Your task to perform on an android device: open a new tab in the chrome app Image 0: 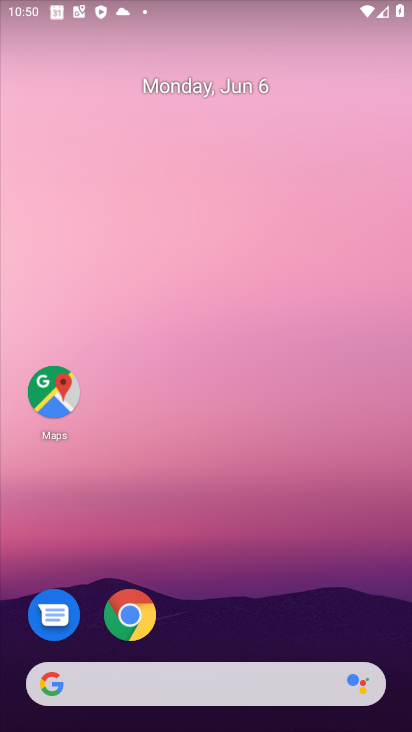
Step 0: click (146, 621)
Your task to perform on an android device: open a new tab in the chrome app Image 1: 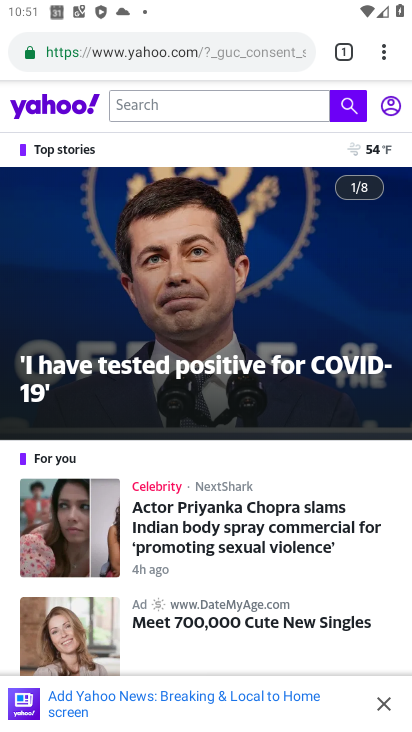
Step 1: click (347, 61)
Your task to perform on an android device: open a new tab in the chrome app Image 2: 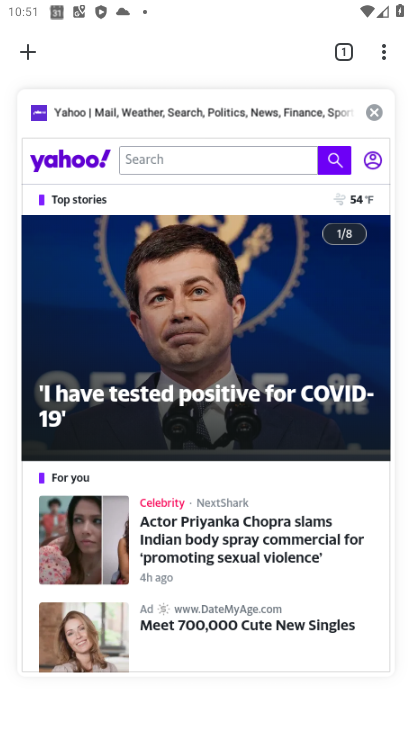
Step 2: click (29, 56)
Your task to perform on an android device: open a new tab in the chrome app Image 3: 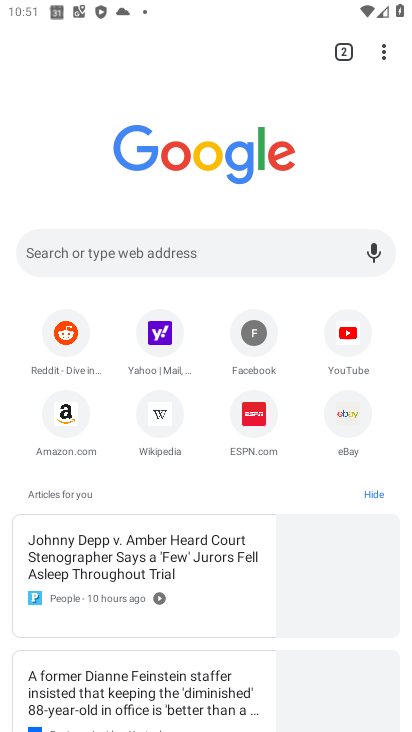
Step 3: task complete